Your task to perform on an android device: Search for panasonic triple a on walmart, select the first entry, add it to the cart, then select checkout. Image 0: 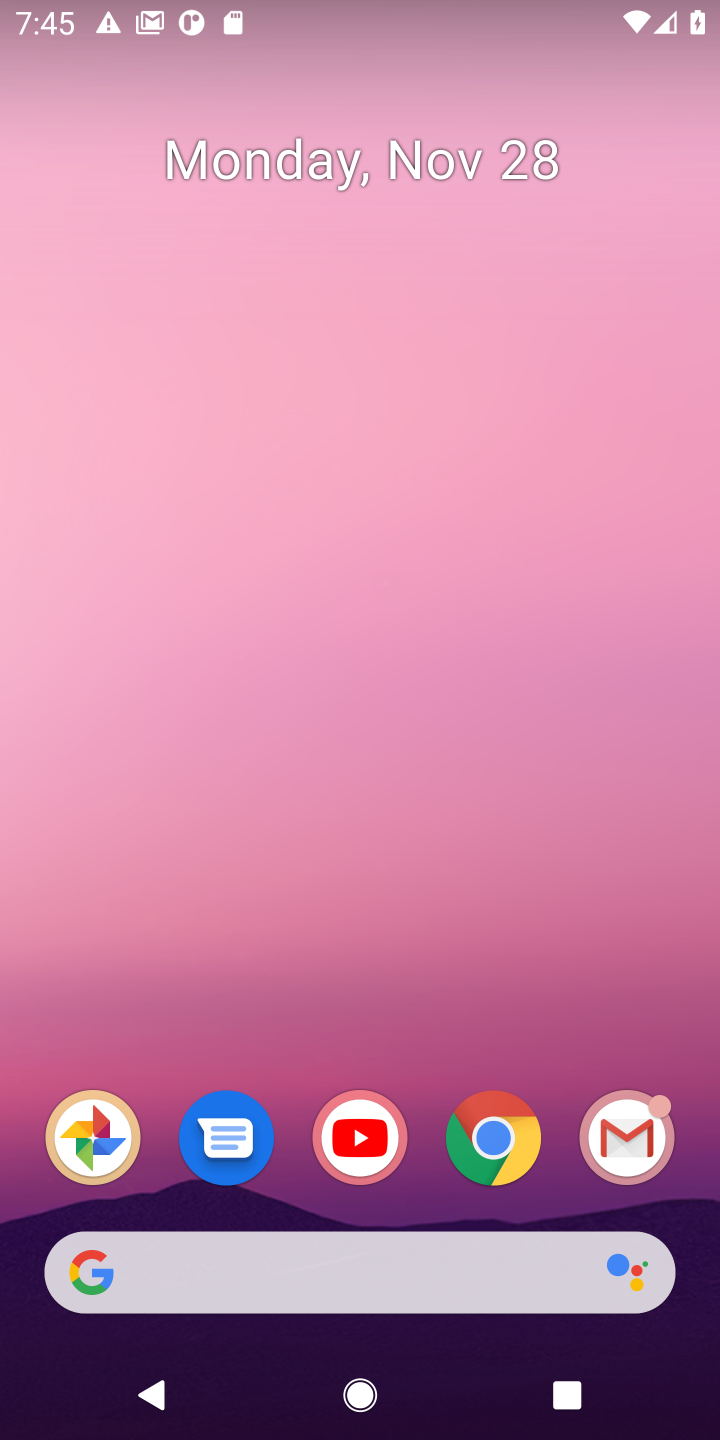
Step 0: click (485, 1134)
Your task to perform on an android device: Search for panasonic triple a on walmart, select the first entry, add it to the cart, then select checkout. Image 1: 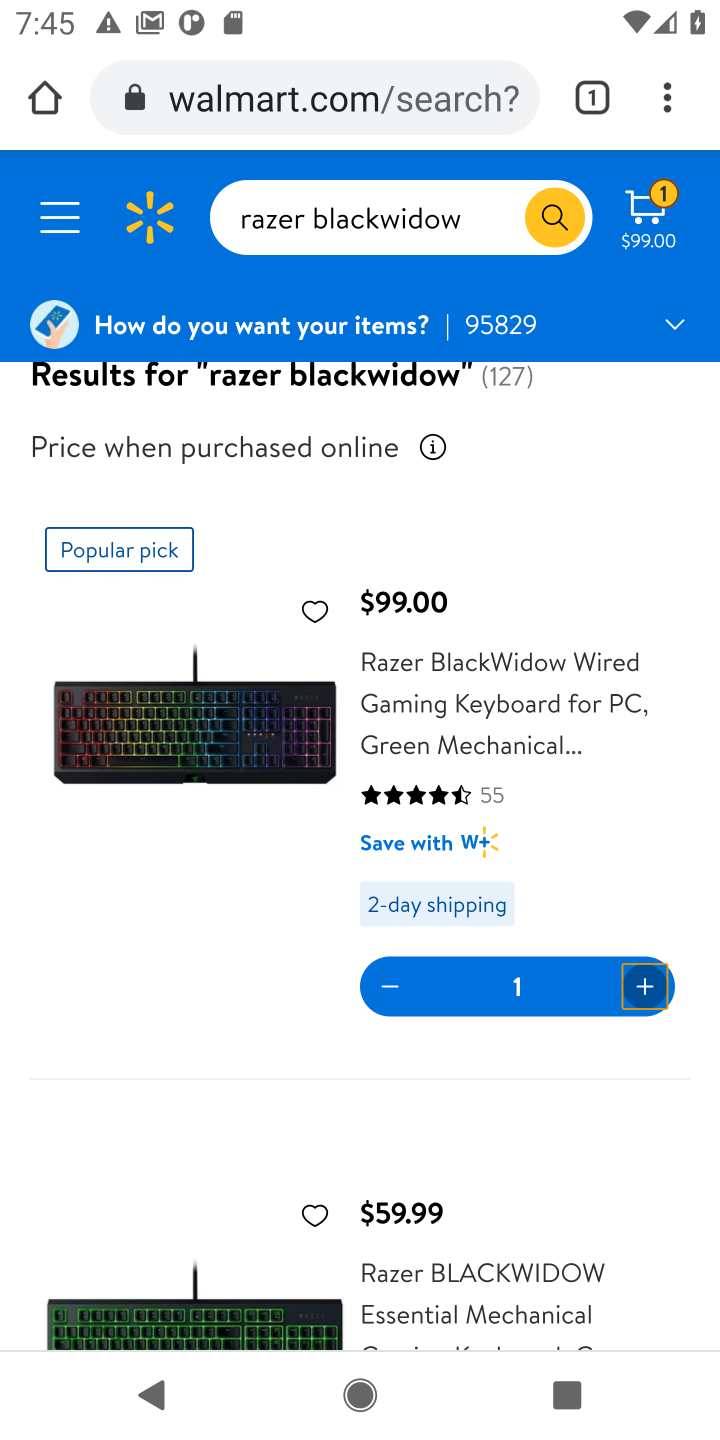
Step 1: click (338, 203)
Your task to perform on an android device: Search for panasonic triple a on walmart, select the first entry, add it to the cart, then select checkout. Image 2: 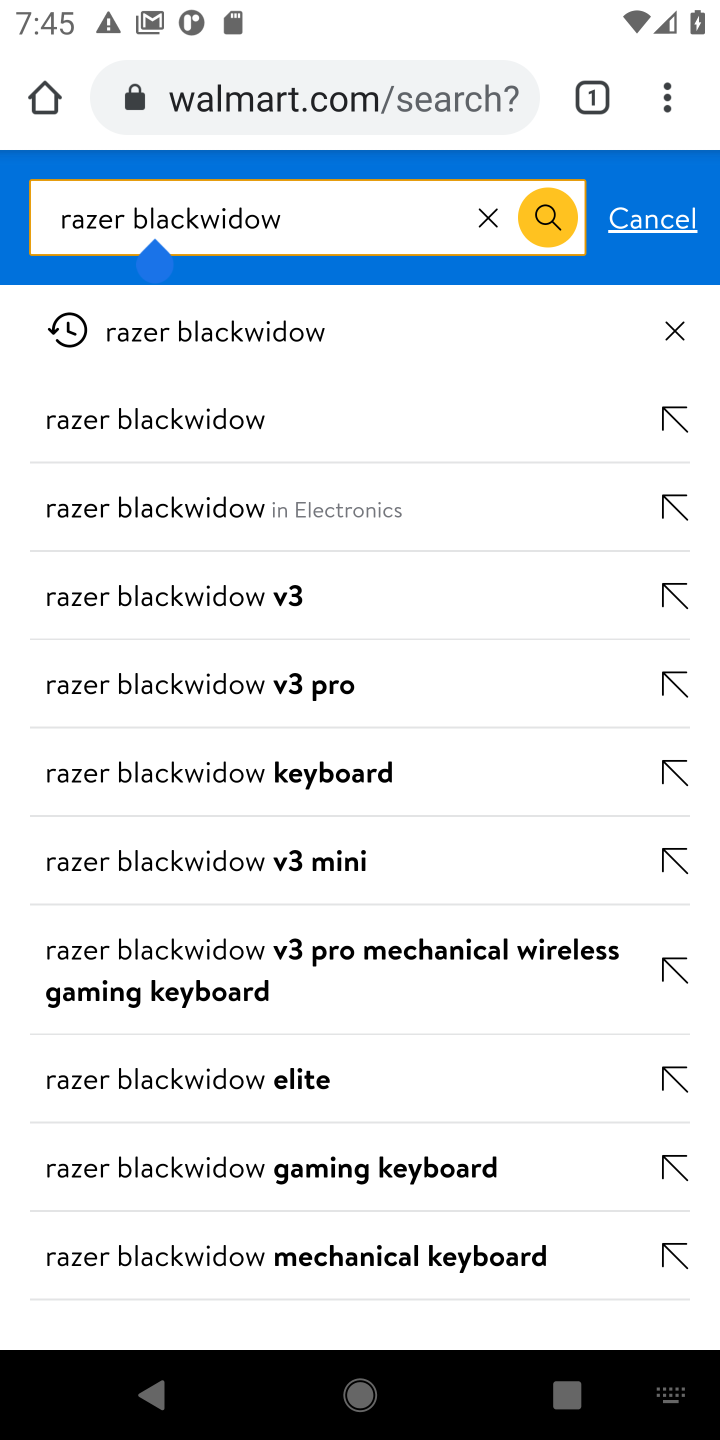
Step 2: click (493, 223)
Your task to perform on an android device: Search for panasonic triple a on walmart, select the first entry, add it to the cart, then select checkout. Image 3: 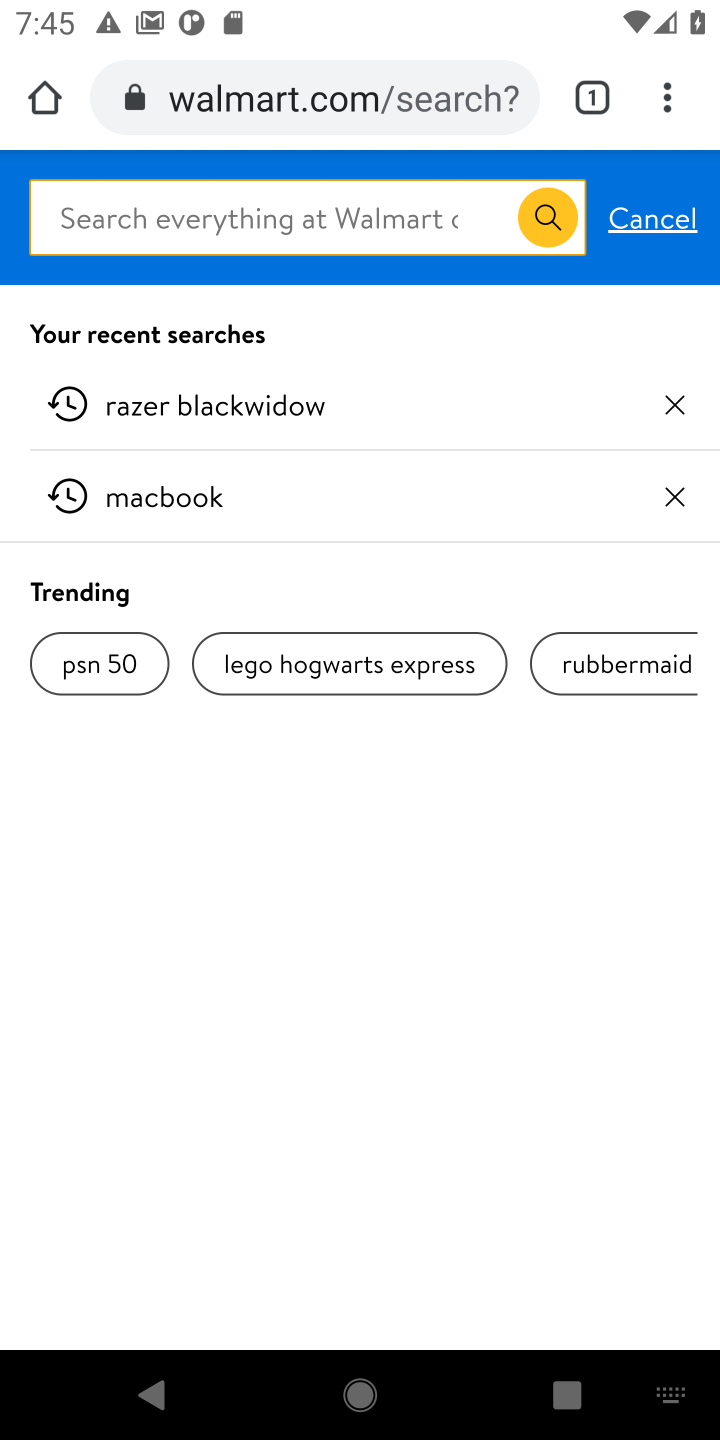
Step 3: type "panasonic triple a"
Your task to perform on an android device: Search for panasonic triple a on walmart, select the first entry, add it to the cart, then select checkout. Image 4: 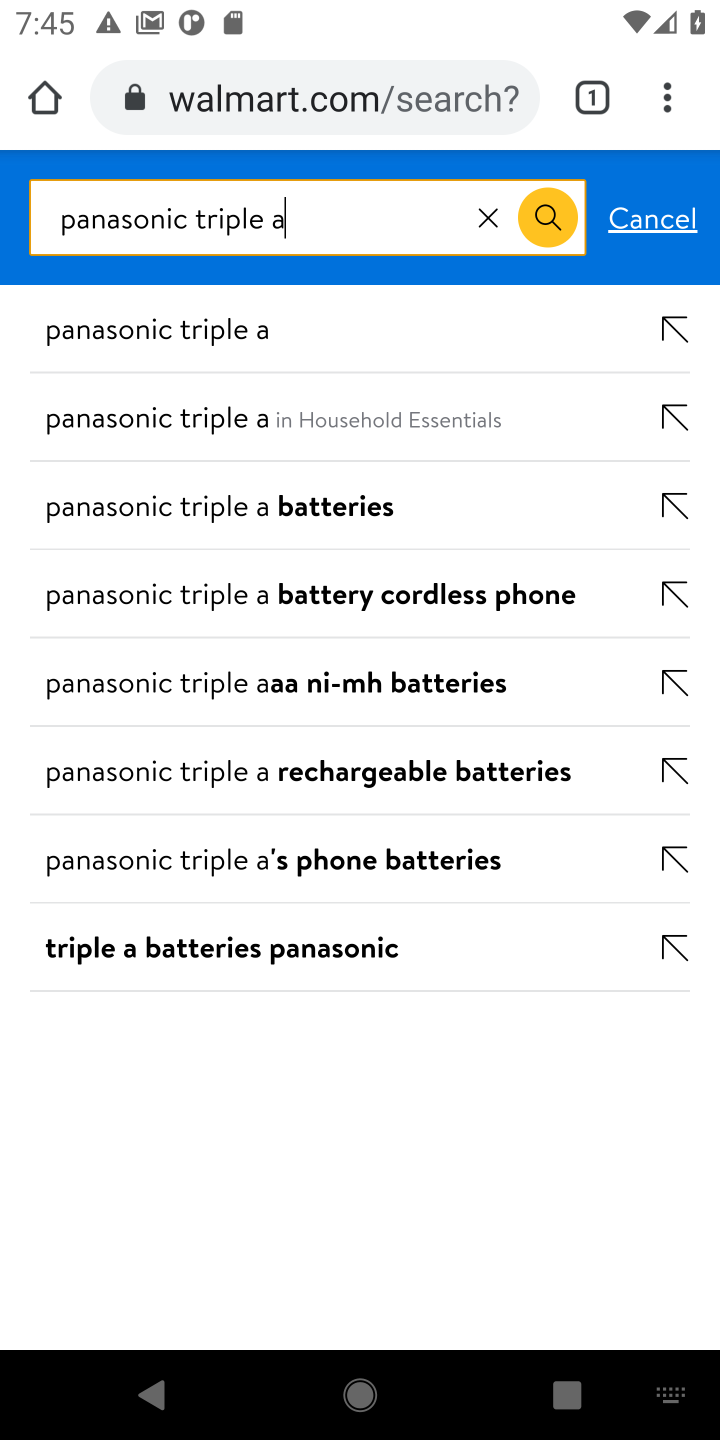
Step 4: click (163, 344)
Your task to perform on an android device: Search for panasonic triple a on walmart, select the first entry, add it to the cart, then select checkout. Image 5: 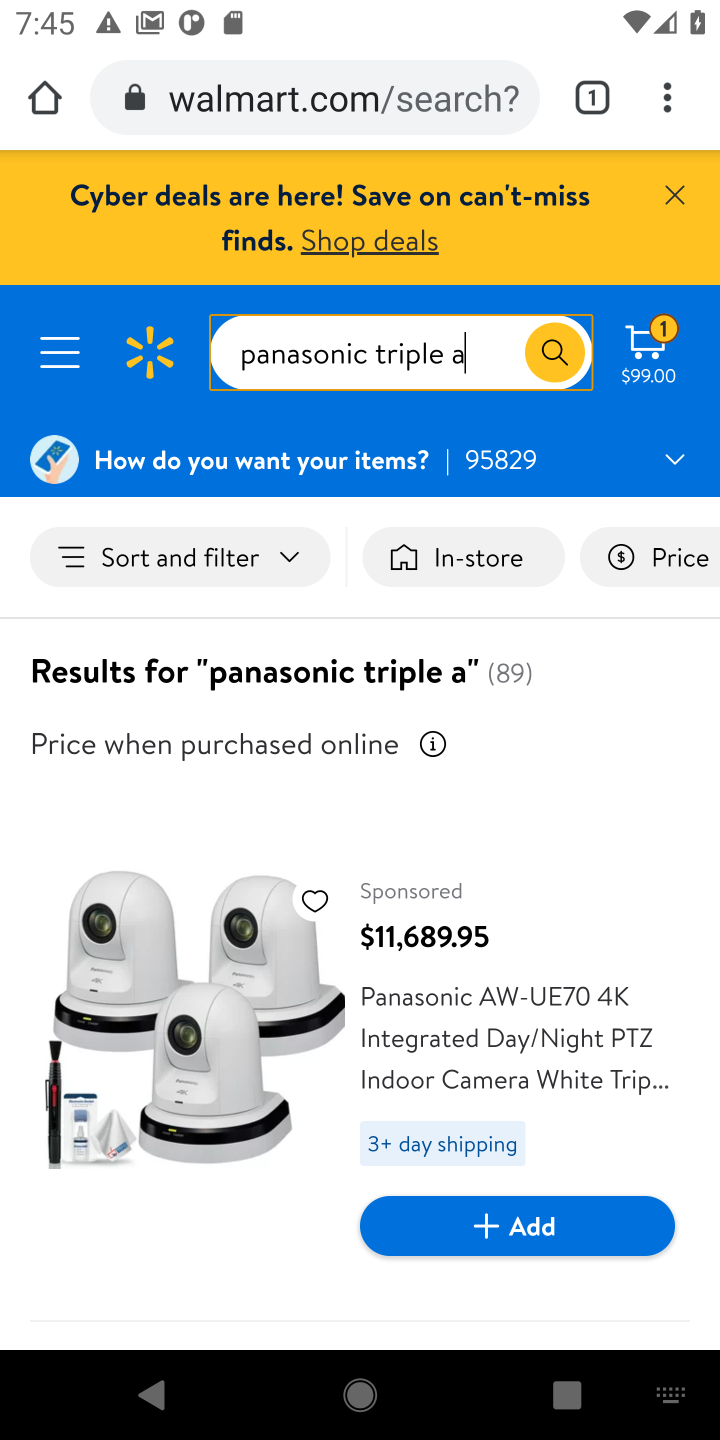
Step 5: task complete